Your task to perform on an android device: Open internet settings Image 0: 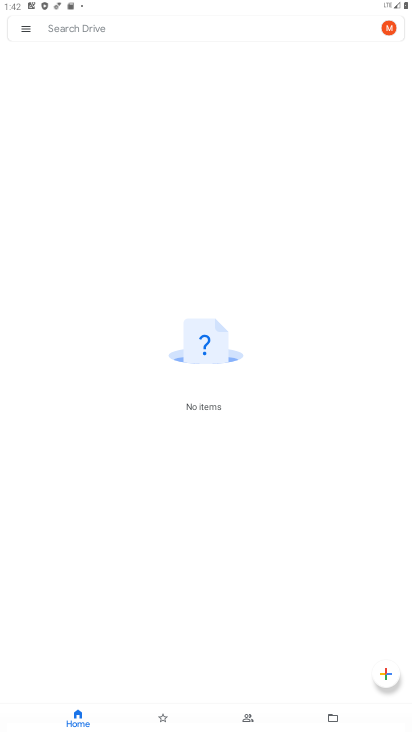
Step 0: press back button
Your task to perform on an android device: Open internet settings Image 1: 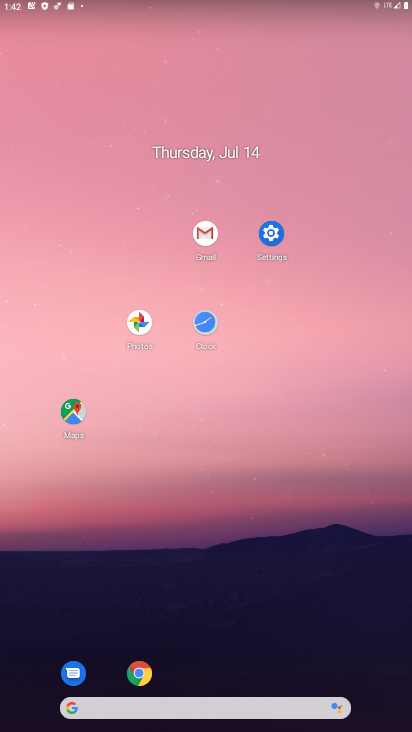
Step 1: click (264, 242)
Your task to perform on an android device: Open internet settings Image 2: 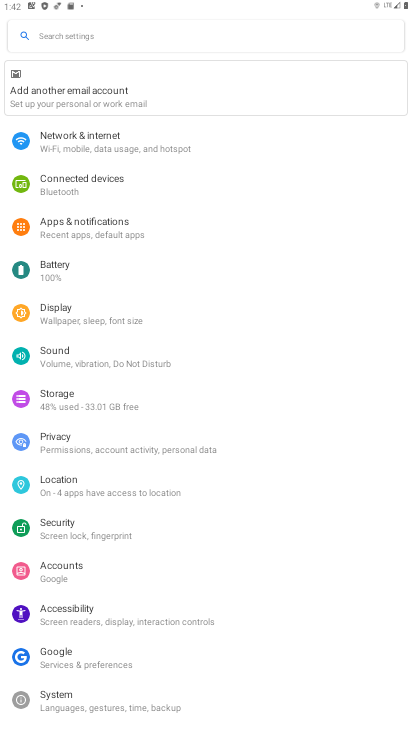
Step 2: click (159, 140)
Your task to perform on an android device: Open internet settings Image 3: 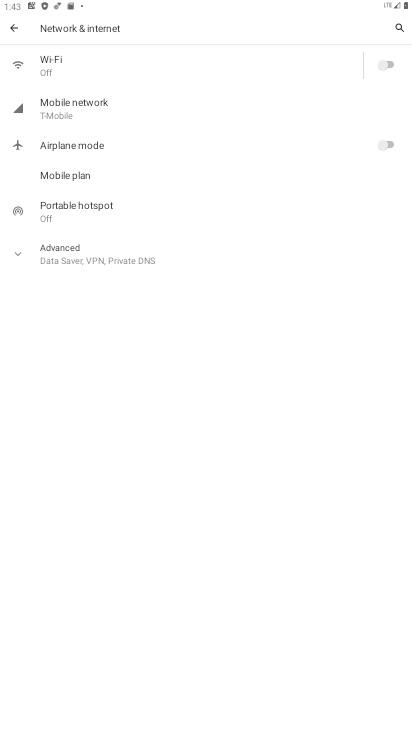
Step 3: task complete